Your task to perform on an android device: Open the calendar app, open the side menu, and click the "Day" option Image 0: 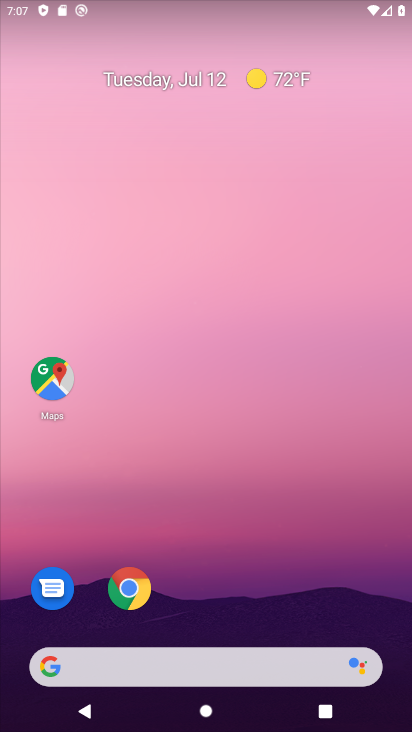
Step 0: drag from (232, 623) to (410, 30)
Your task to perform on an android device: Open the calendar app, open the side menu, and click the "Day" option Image 1: 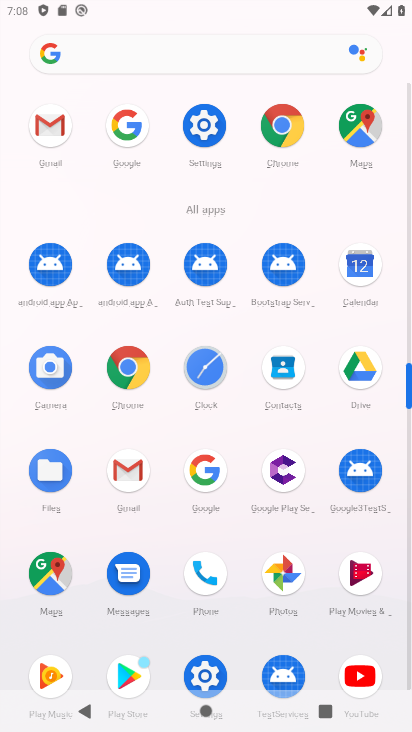
Step 1: click (373, 283)
Your task to perform on an android device: Open the calendar app, open the side menu, and click the "Day" option Image 2: 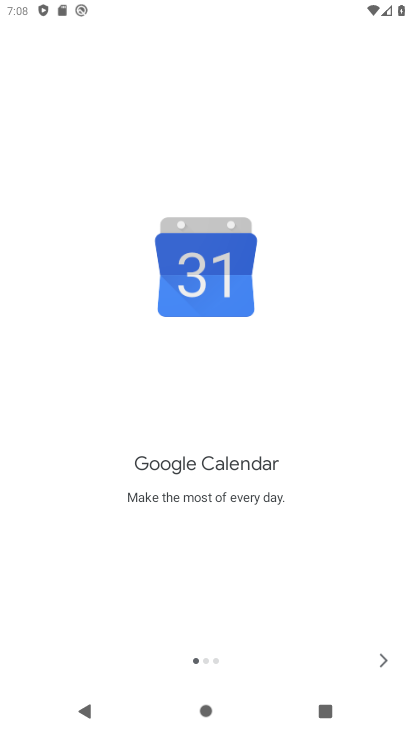
Step 2: click (377, 657)
Your task to perform on an android device: Open the calendar app, open the side menu, and click the "Day" option Image 3: 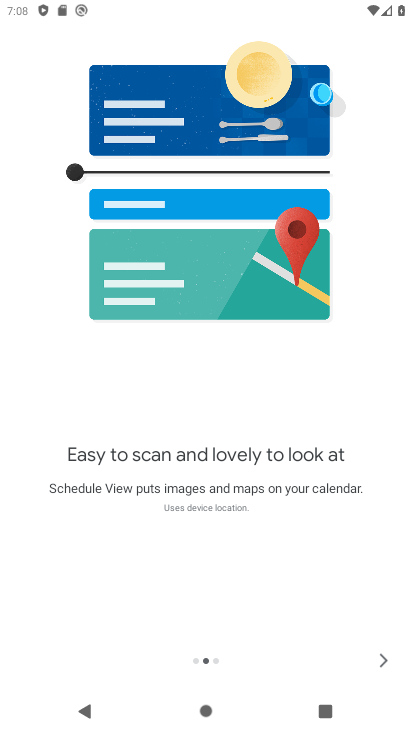
Step 3: click (382, 656)
Your task to perform on an android device: Open the calendar app, open the side menu, and click the "Day" option Image 4: 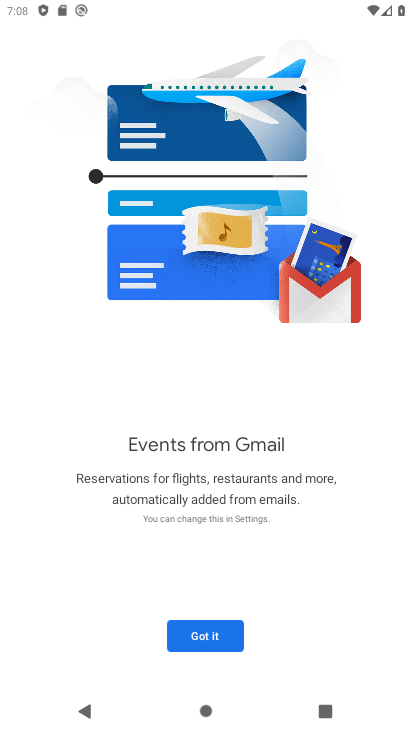
Step 4: click (223, 629)
Your task to perform on an android device: Open the calendar app, open the side menu, and click the "Day" option Image 5: 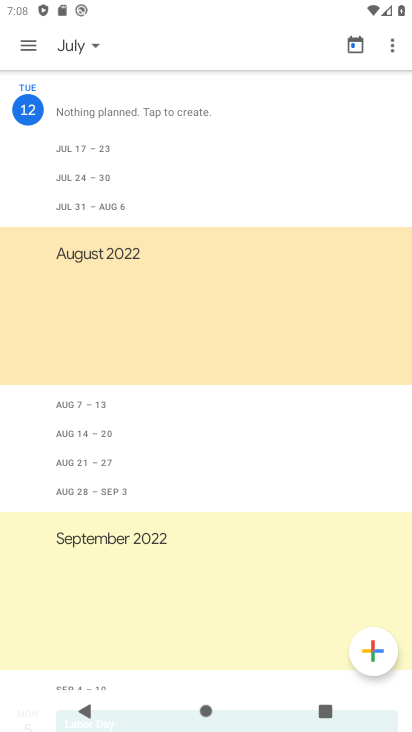
Step 5: click (28, 39)
Your task to perform on an android device: Open the calendar app, open the side menu, and click the "Day" option Image 6: 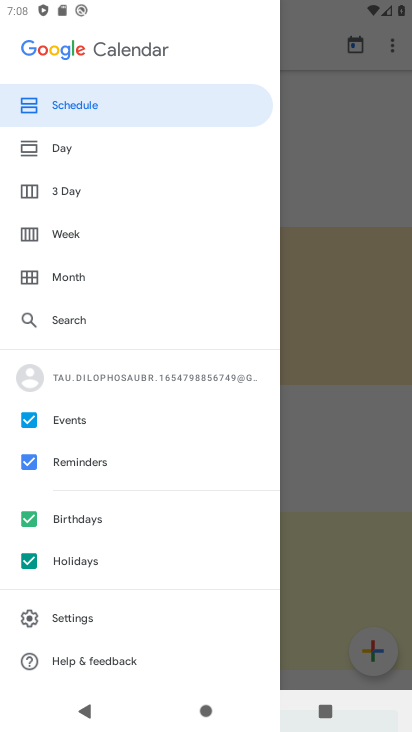
Step 6: click (49, 151)
Your task to perform on an android device: Open the calendar app, open the side menu, and click the "Day" option Image 7: 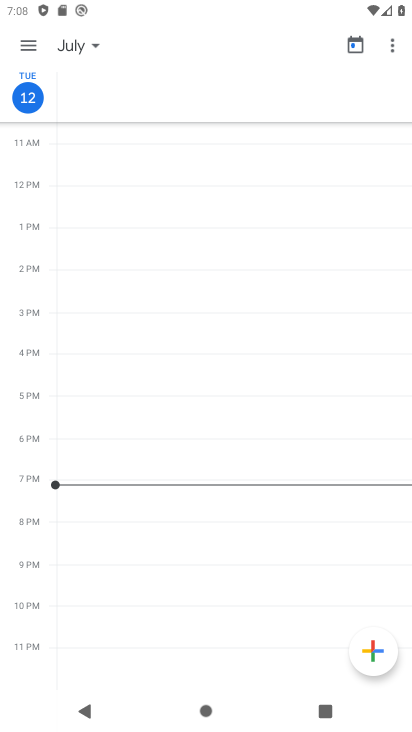
Step 7: task complete